Your task to perform on an android device: turn pop-ups on in chrome Image 0: 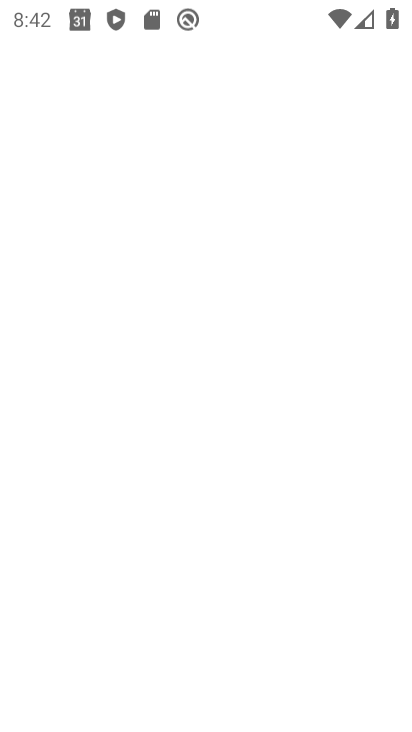
Step 0: drag from (392, 614) to (334, 198)
Your task to perform on an android device: turn pop-ups on in chrome Image 1: 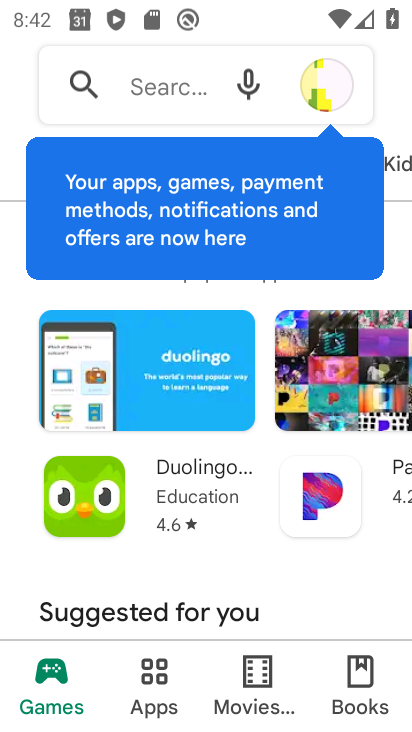
Step 1: press home button
Your task to perform on an android device: turn pop-ups on in chrome Image 2: 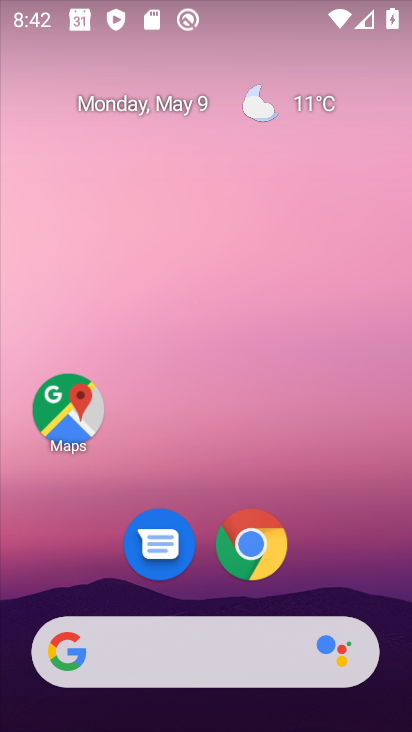
Step 2: click (246, 534)
Your task to perform on an android device: turn pop-ups on in chrome Image 3: 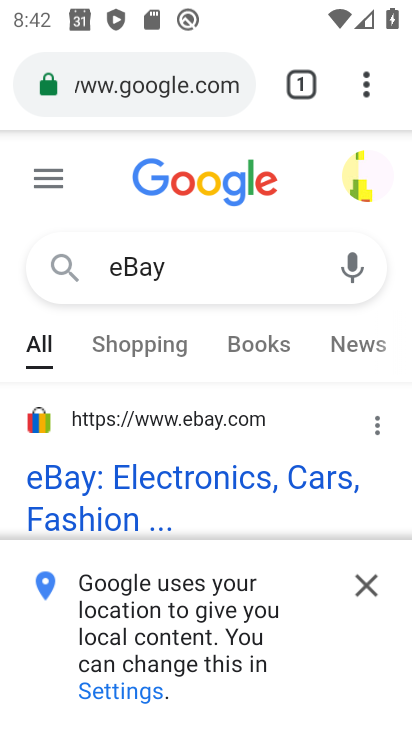
Step 3: click (367, 88)
Your task to perform on an android device: turn pop-ups on in chrome Image 4: 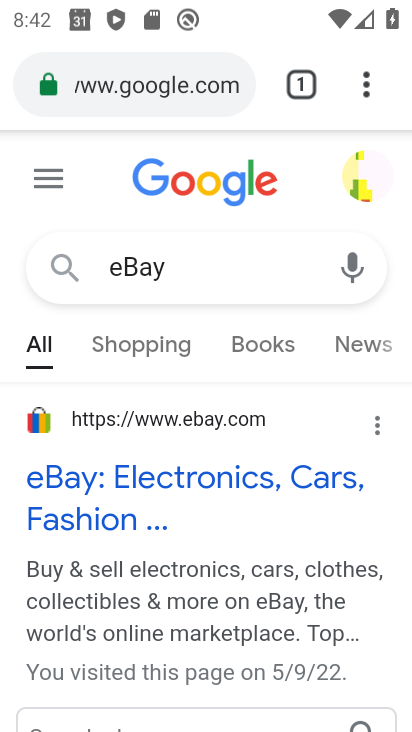
Step 4: click (366, 81)
Your task to perform on an android device: turn pop-ups on in chrome Image 5: 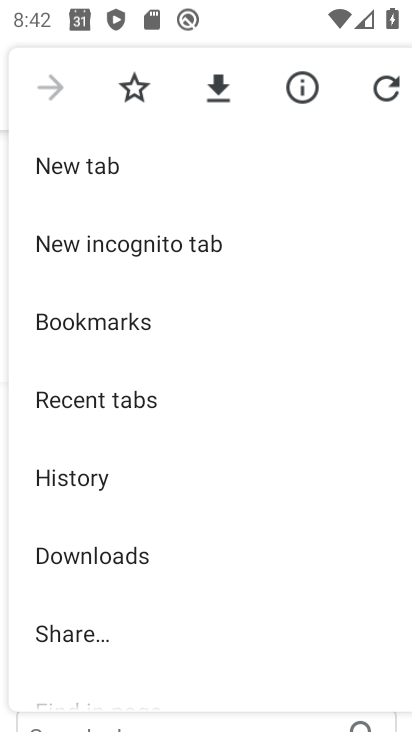
Step 5: drag from (275, 641) to (277, 255)
Your task to perform on an android device: turn pop-ups on in chrome Image 6: 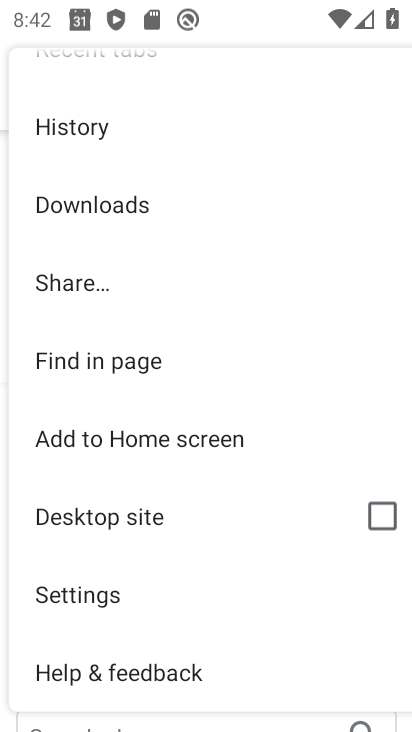
Step 6: click (93, 594)
Your task to perform on an android device: turn pop-ups on in chrome Image 7: 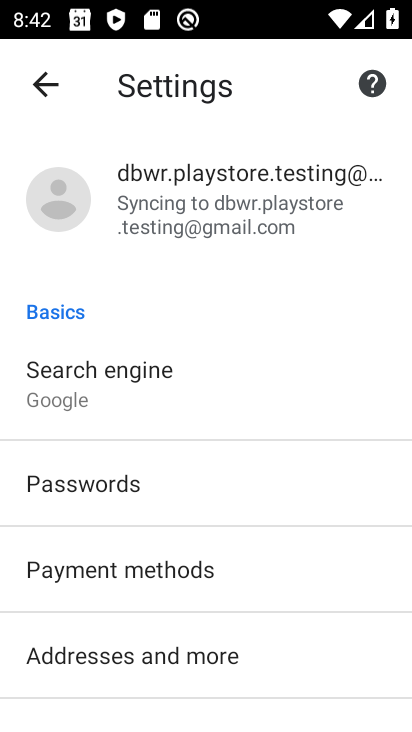
Step 7: drag from (248, 638) to (285, 337)
Your task to perform on an android device: turn pop-ups on in chrome Image 8: 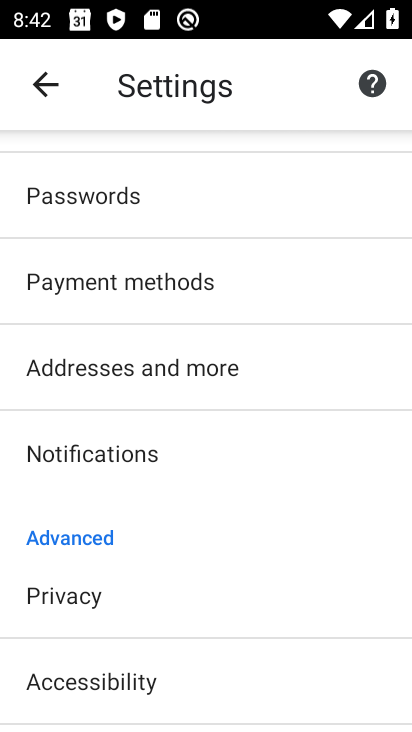
Step 8: drag from (245, 653) to (247, 454)
Your task to perform on an android device: turn pop-ups on in chrome Image 9: 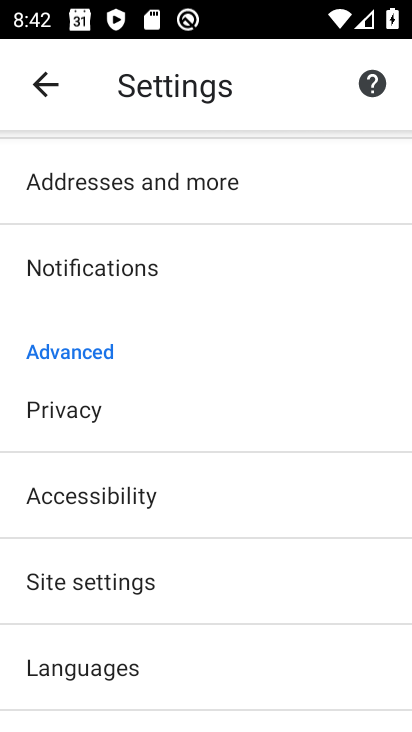
Step 9: click (40, 577)
Your task to perform on an android device: turn pop-ups on in chrome Image 10: 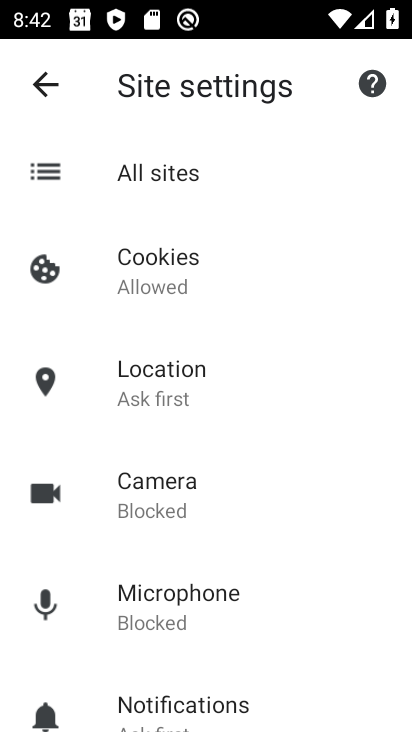
Step 10: drag from (312, 680) to (335, 408)
Your task to perform on an android device: turn pop-ups on in chrome Image 11: 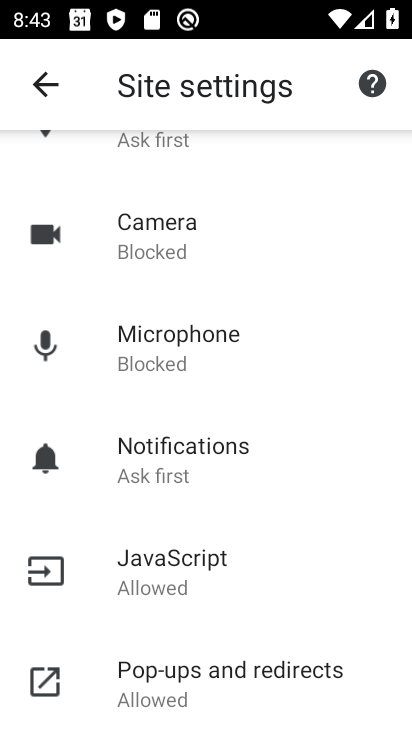
Step 11: click (161, 671)
Your task to perform on an android device: turn pop-ups on in chrome Image 12: 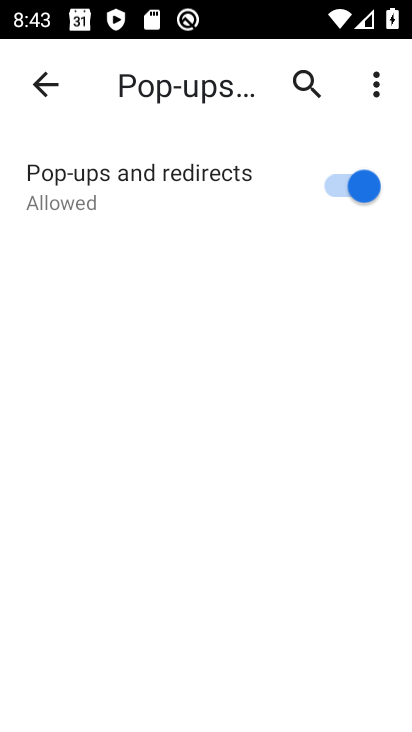
Step 12: task complete